Your task to perform on an android device: uninstall "Pluto TV - Live TV and Movies" Image 0: 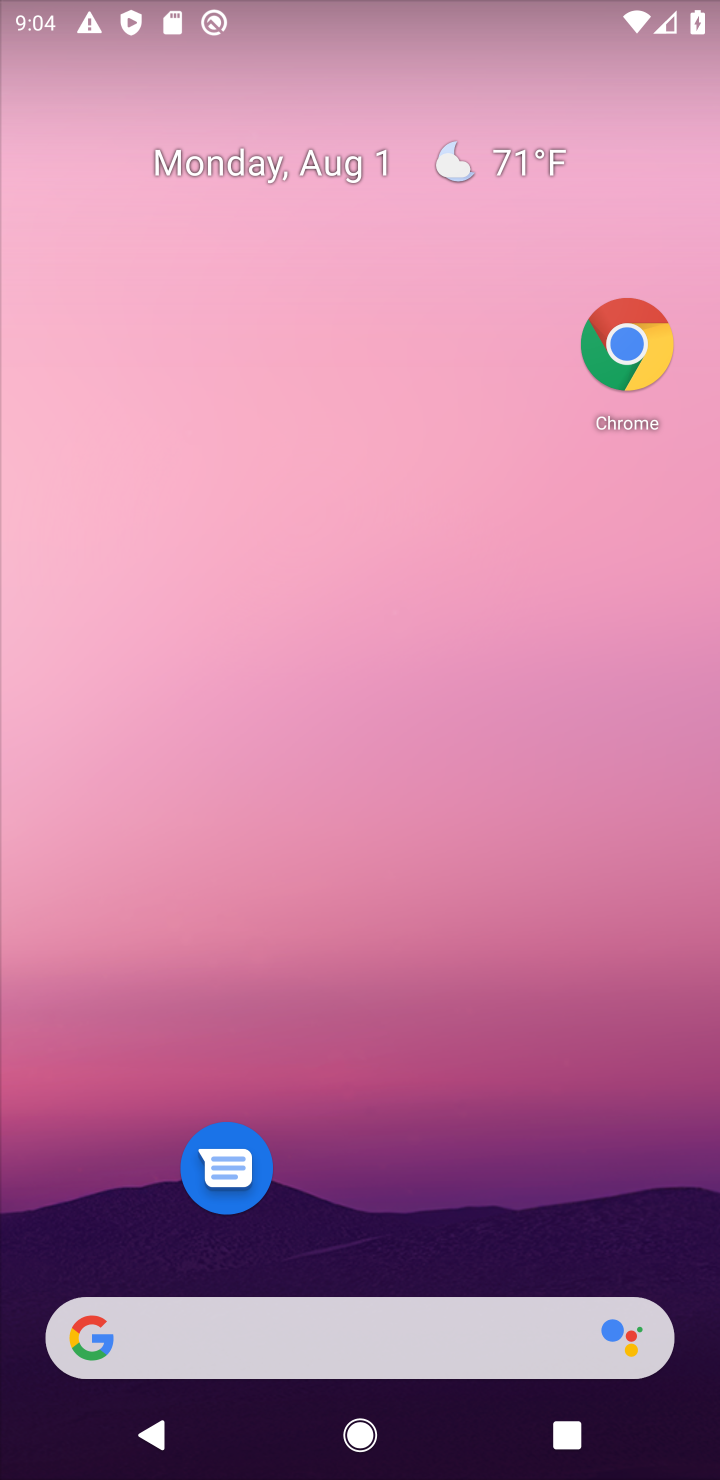
Step 0: drag from (369, 1292) to (164, 75)
Your task to perform on an android device: uninstall "Pluto TV - Live TV and Movies" Image 1: 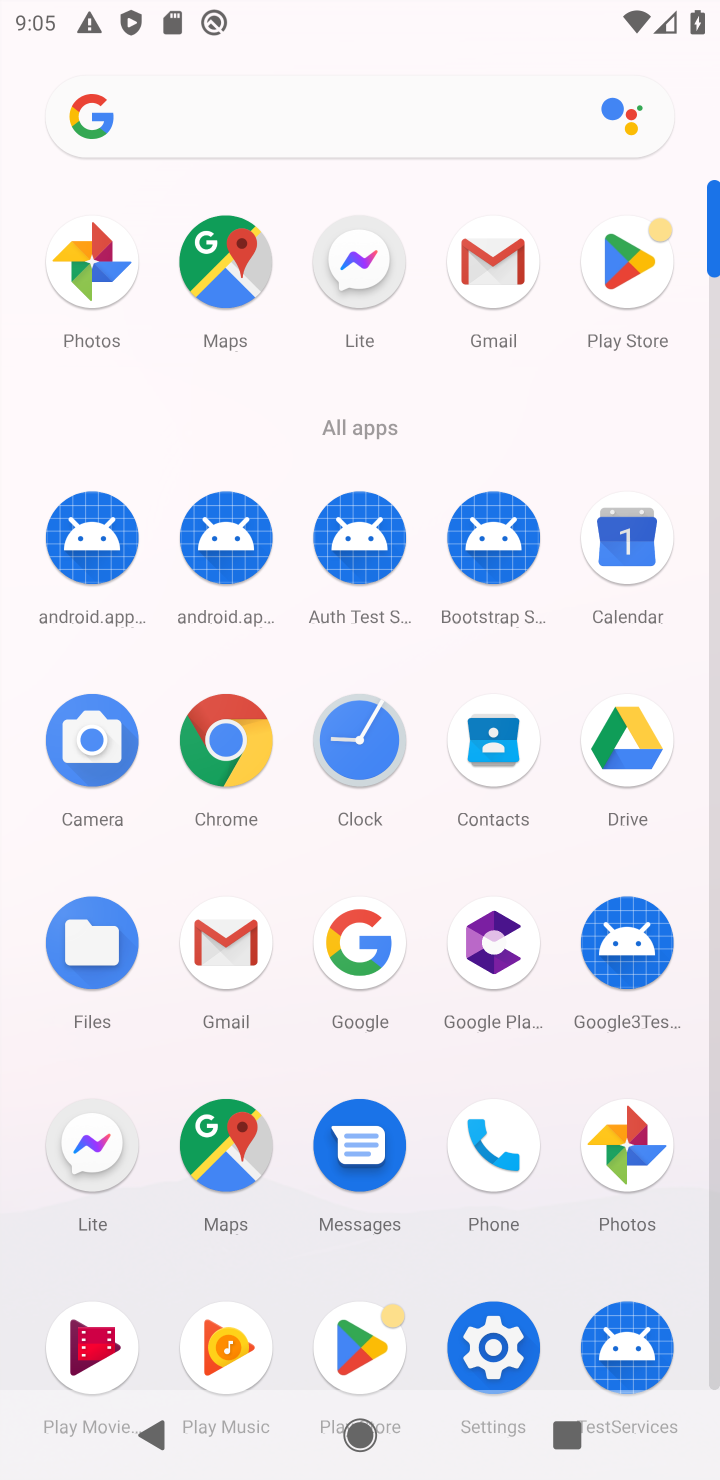
Step 1: click (343, 1350)
Your task to perform on an android device: uninstall "Pluto TV - Live TV and Movies" Image 2: 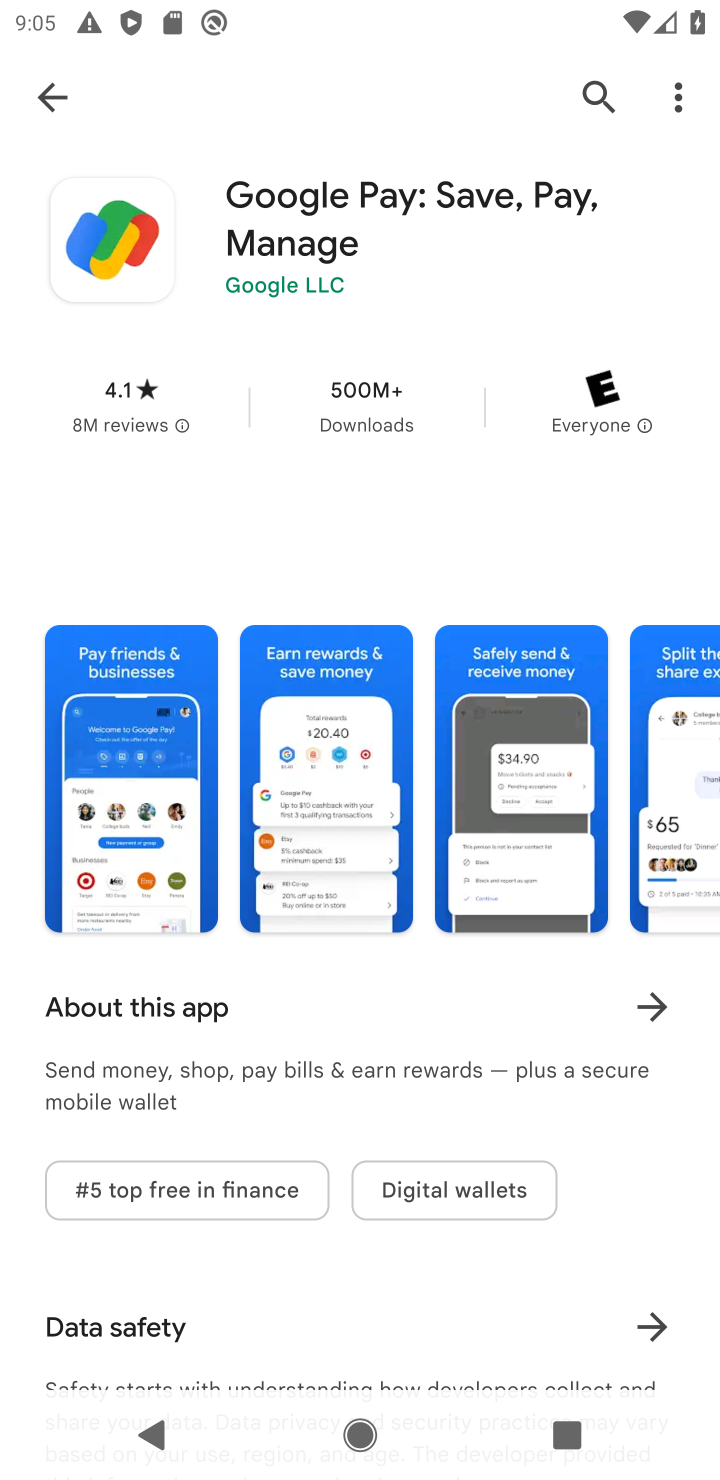
Step 2: click (49, 95)
Your task to perform on an android device: uninstall "Pluto TV - Live TV and Movies" Image 3: 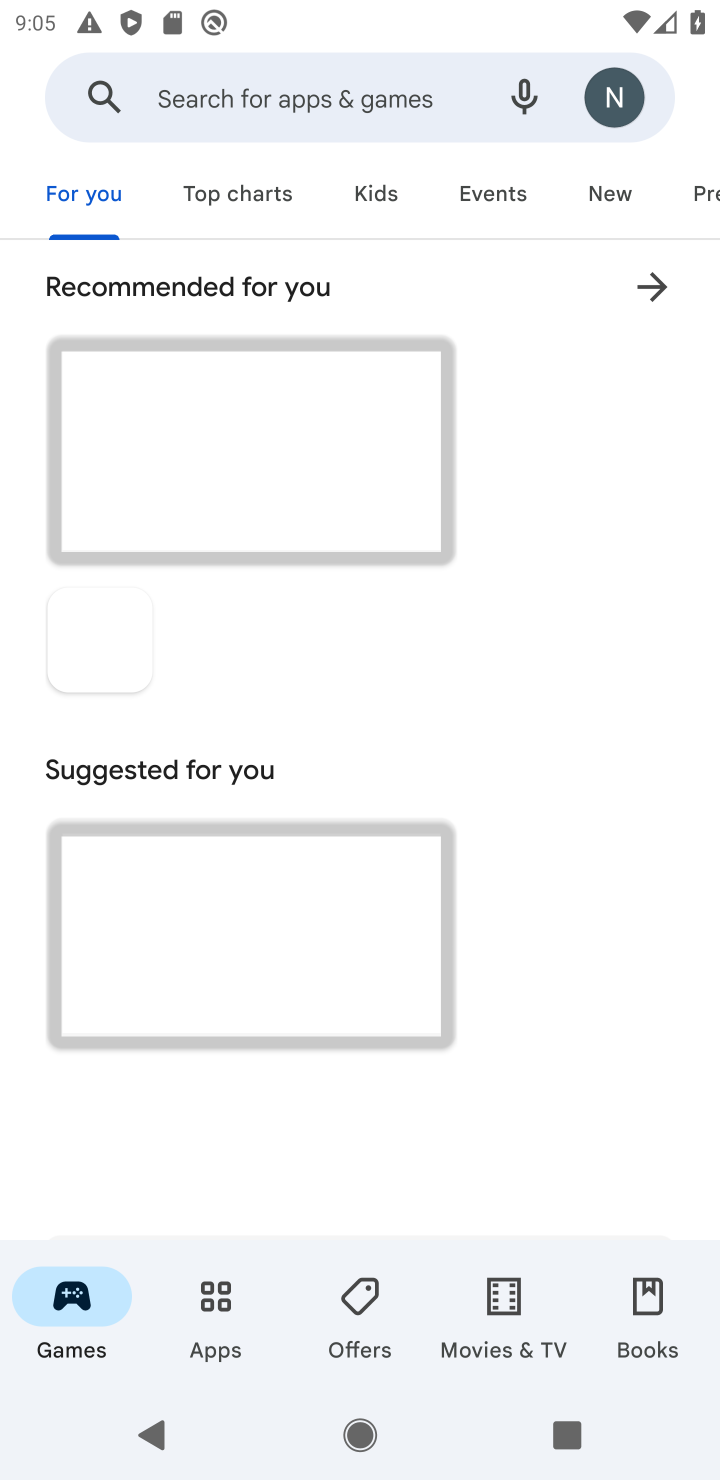
Step 3: click (166, 96)
Your task to perform on an android device: uninstall "Pluto TV - Live TV and Movies" Image 4: 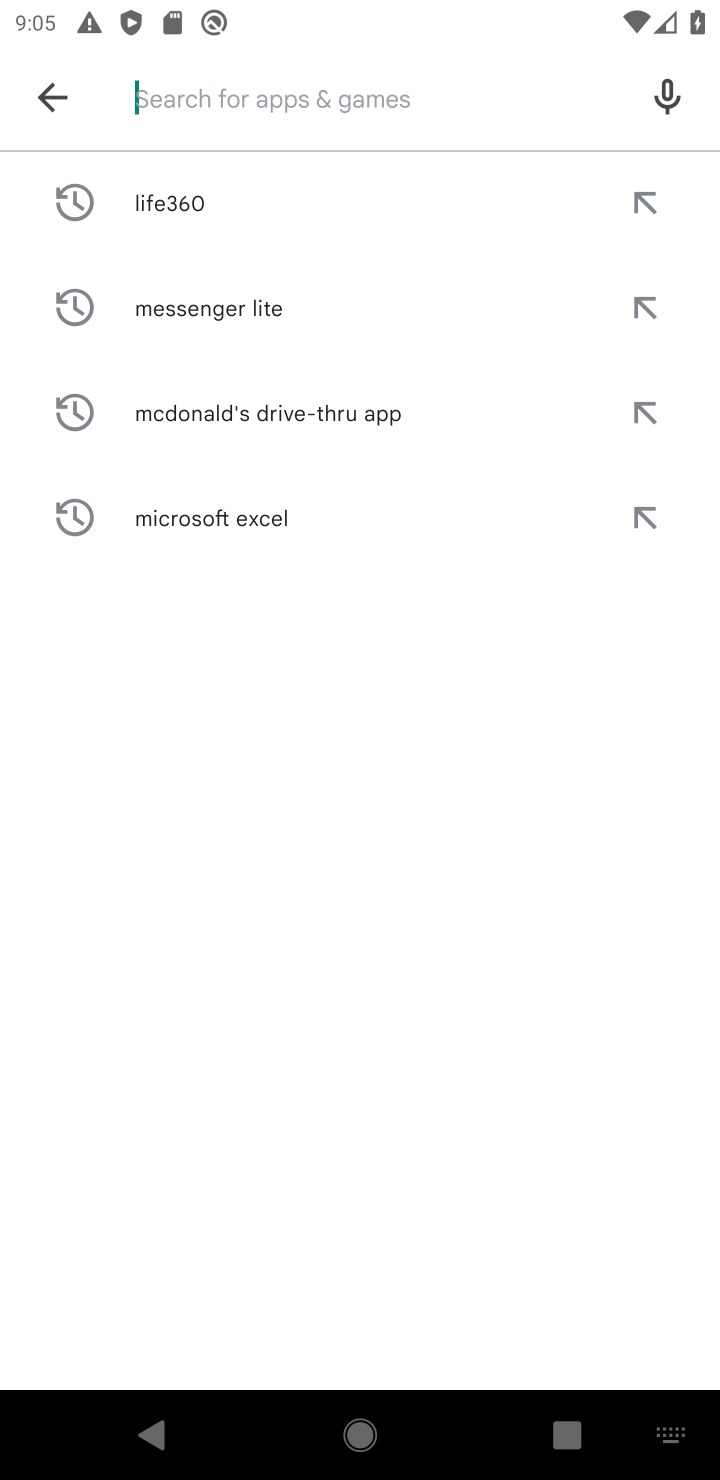
Step 4: type "Pluto TV - Live TV and Movies"
Your task to perform on an android device: uninstall "Pluto TV - Live TV and Movies" Image 5: 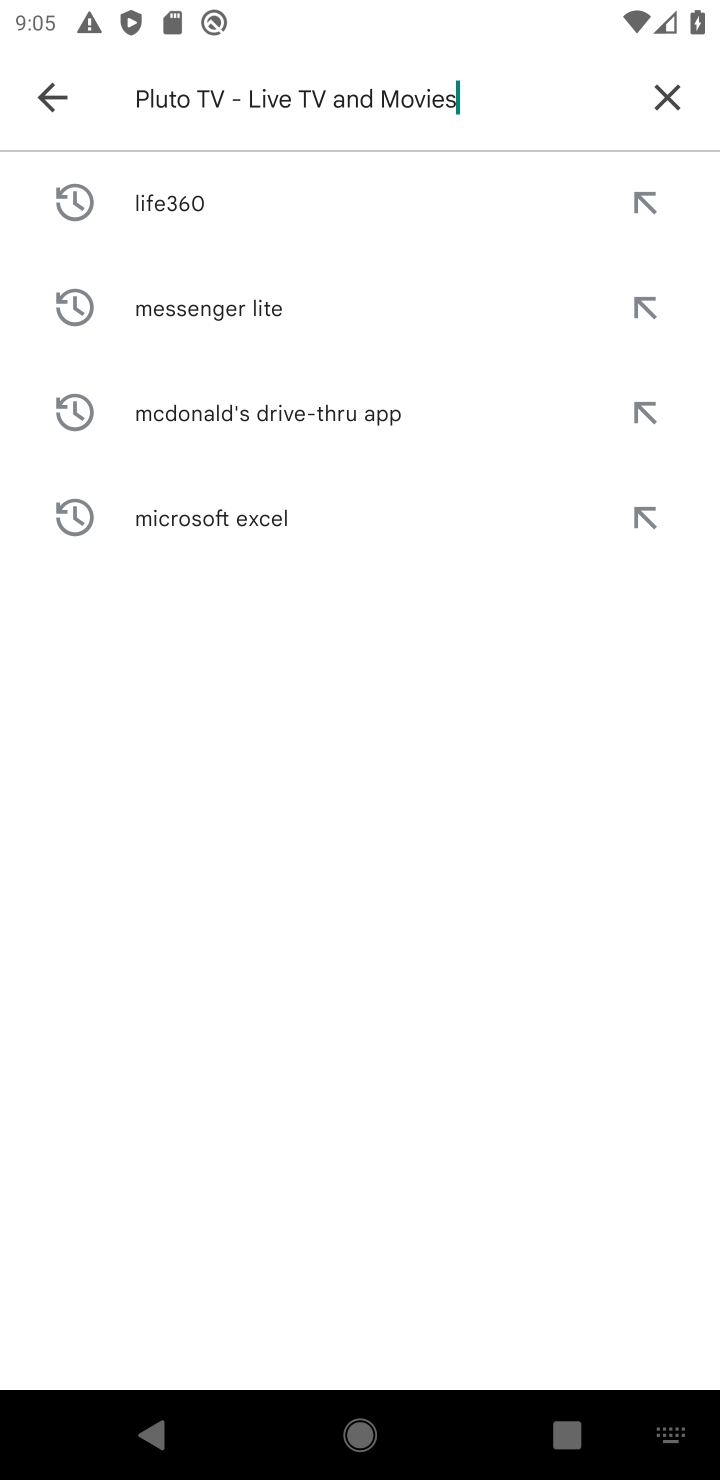
Step 5: type ""
Your task to perform on an android device: uninstall "Pluto TV - Live TV and Movies" Image 6: 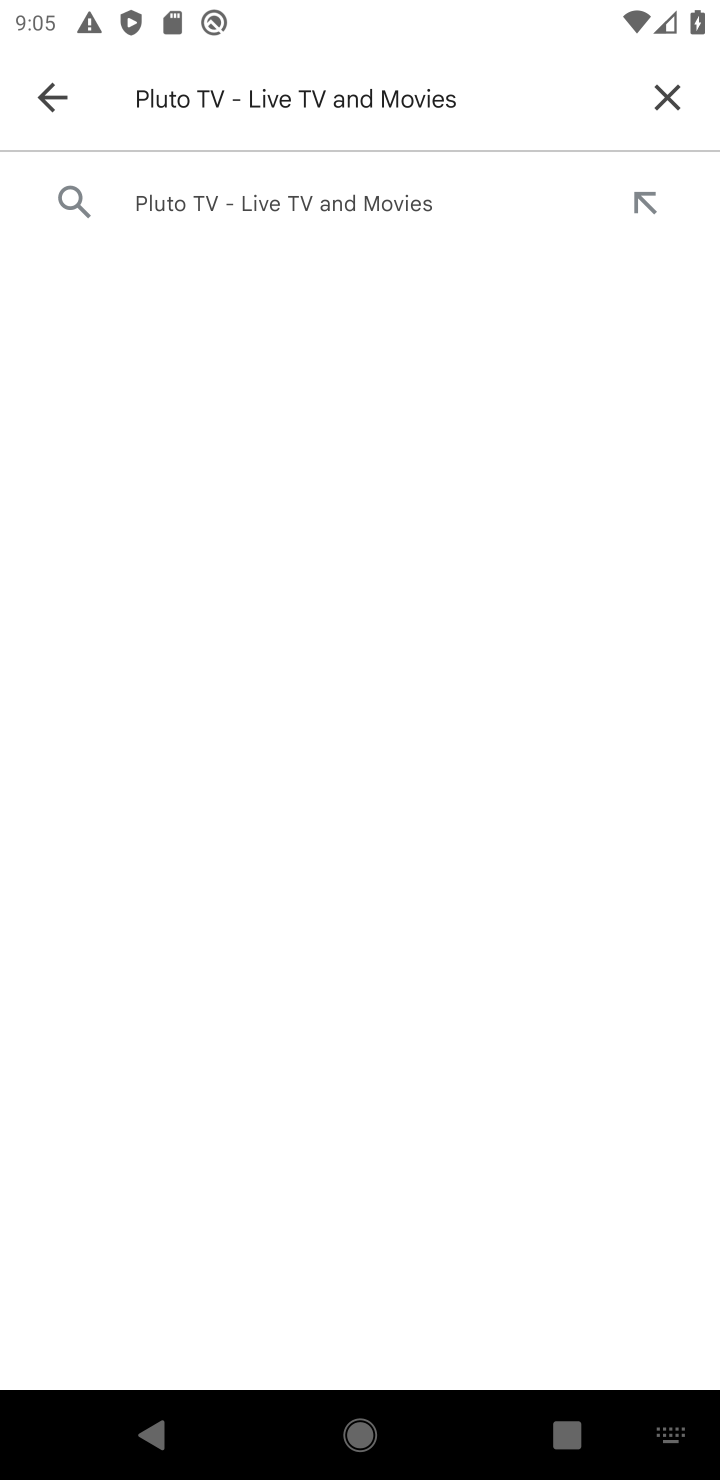
Step 6: click (223, 199)
Your task to perform on an android device: uninstall "Pluto TV - Live TV and Movies" Image 7: 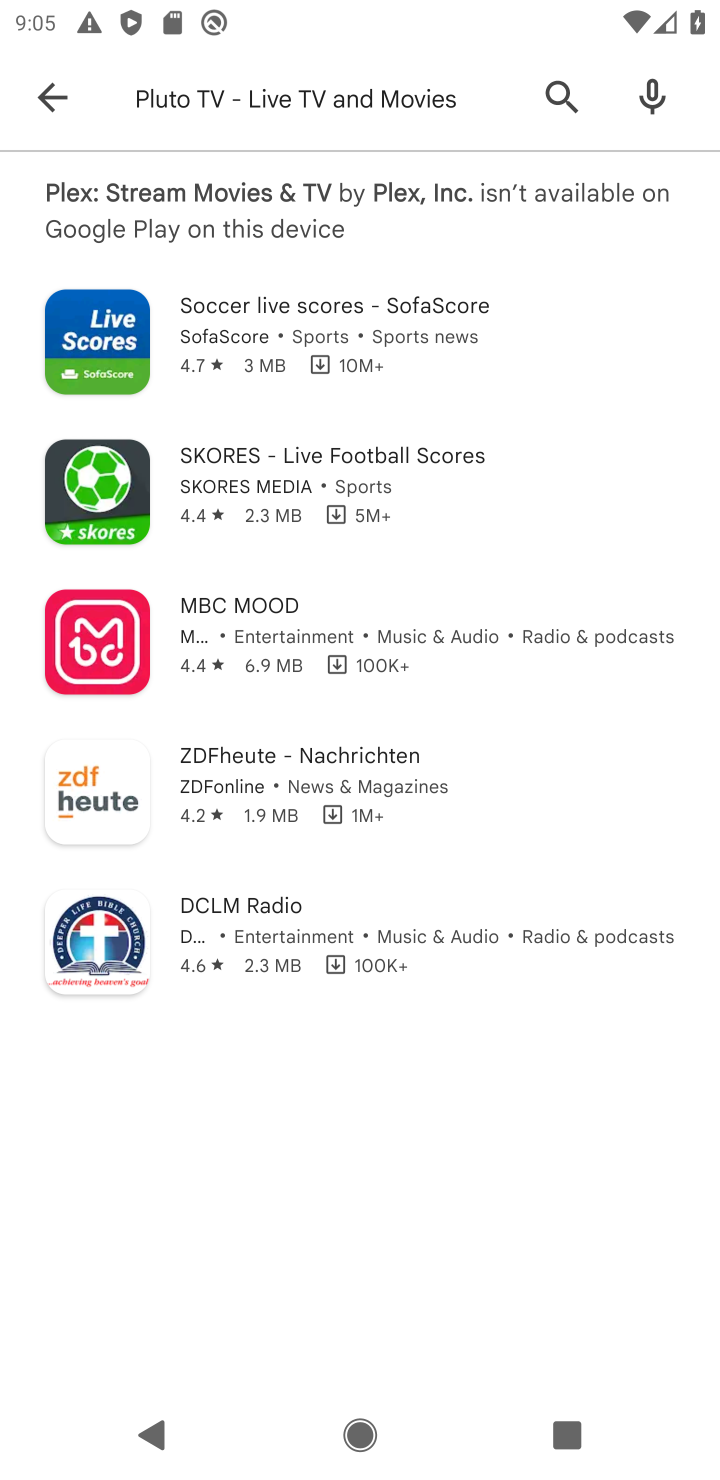
Step 7: task complete